Your task to perform on an android device: Show me recent news Image 0: 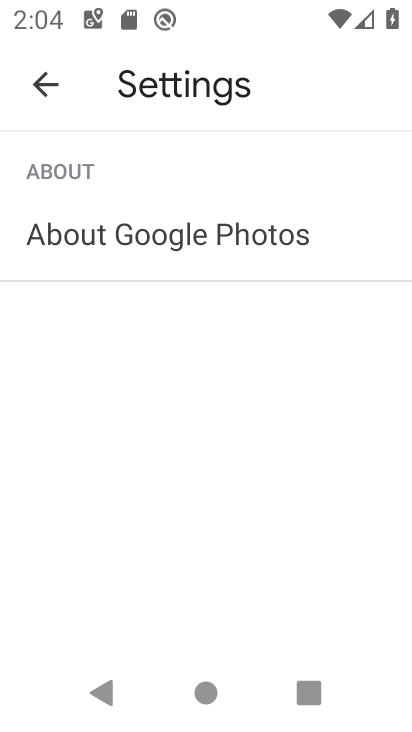
Step 0: press home button
Your task to perform on an android device: Show me recent news Image 1: 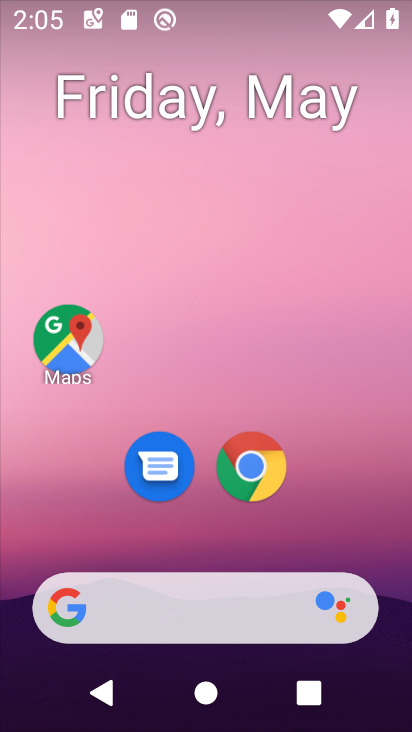
Step 1: click (256, 461)
Your task to perform on an android device: Show me recent news Image 2: 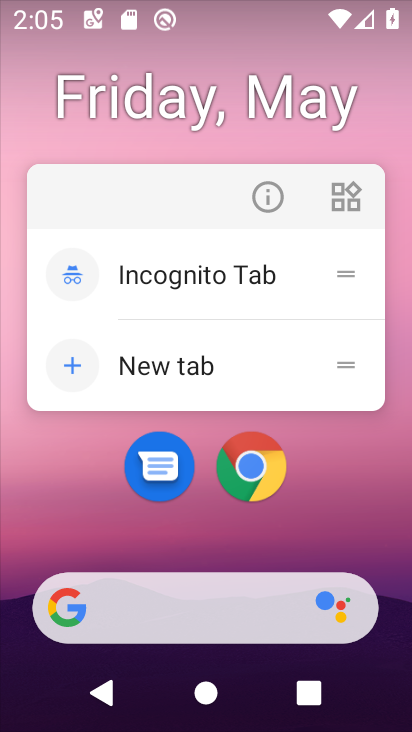
Step 2: click (256, 461)
Your task to perform on an android device: Show me recent news Image 3: 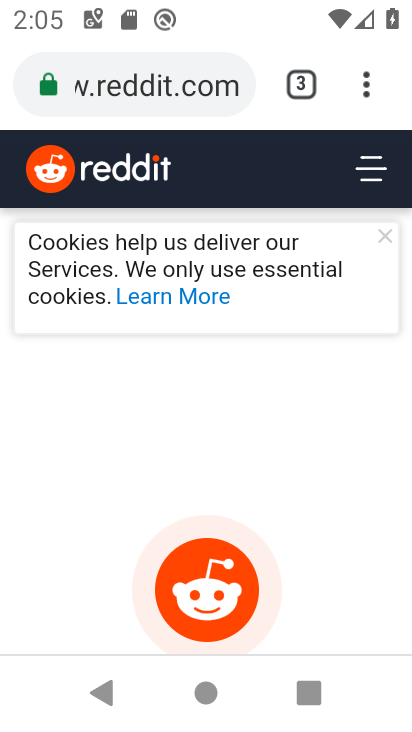
Step 3: click (181, 88)
Your task to perform on an android device: Show me recent news Image 4: 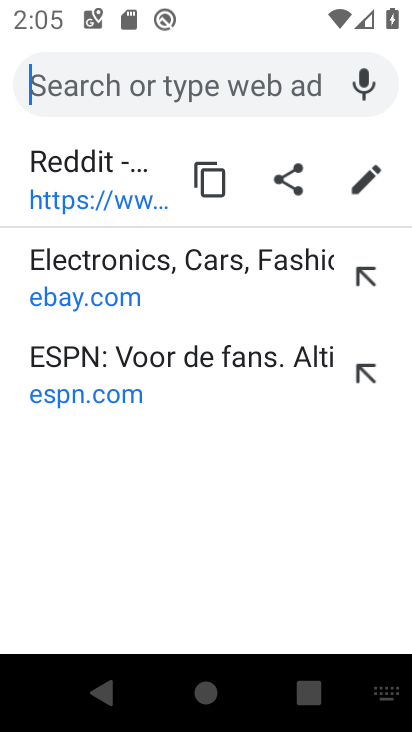
Step 4: click (113, 689)
Your task to perform on an android device: Show me recent news Image 5: 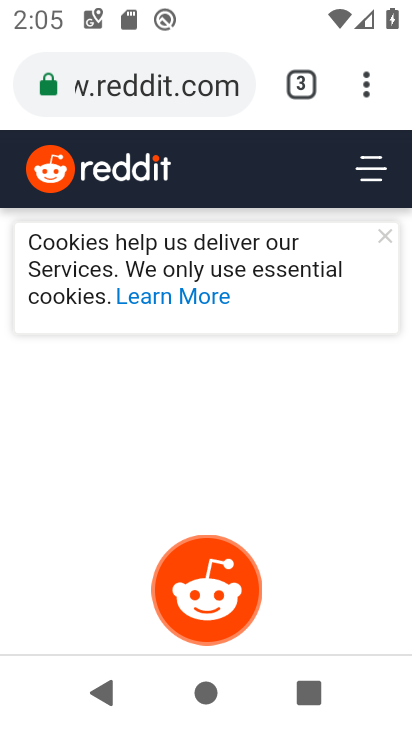
Step 5: drag from (364, 104) to (131, 167)
Your task to perform on an android device: Show me recent news Image 6: 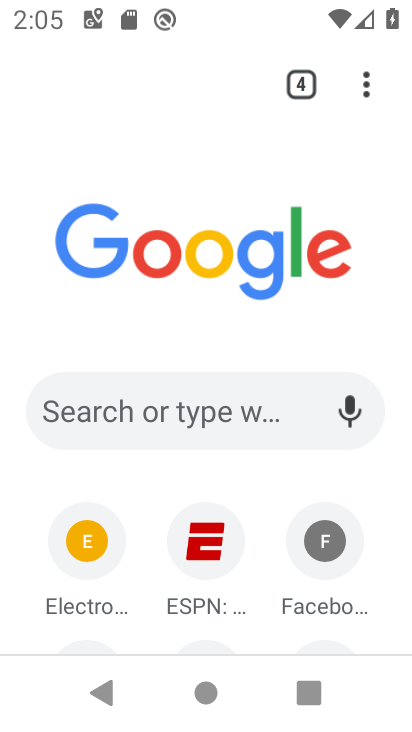
Step 6: click (377, 97)
Your task to perform on an android device: Show me recent news Image 7: 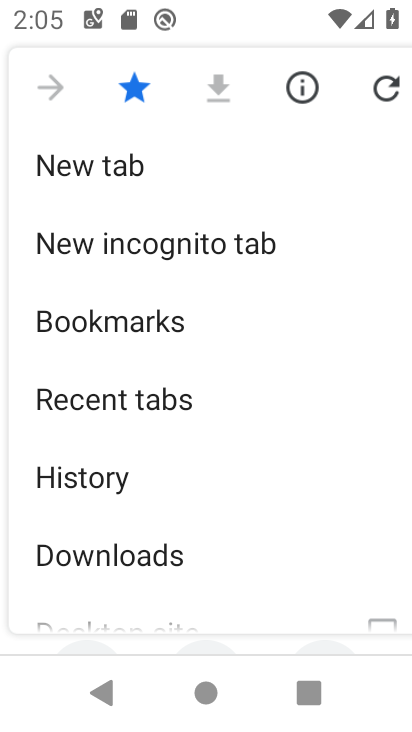
Step 7: task complete